Your task to perform on an android device: Is it going to rain today? Image 0: 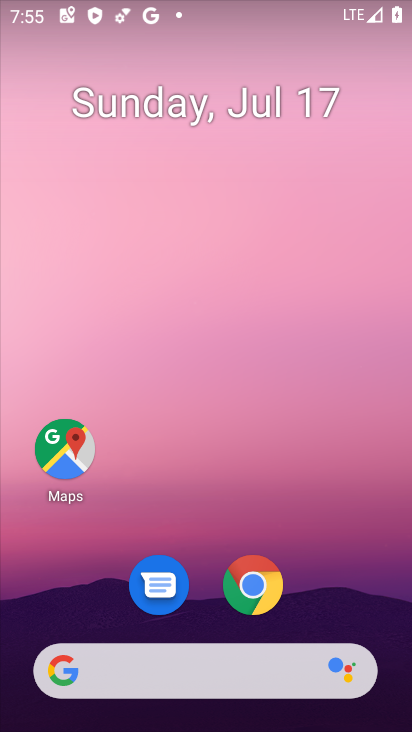
Step 0: click (267, 675)
Your task to perform on an android device: Is it going to rain today? Image 1: 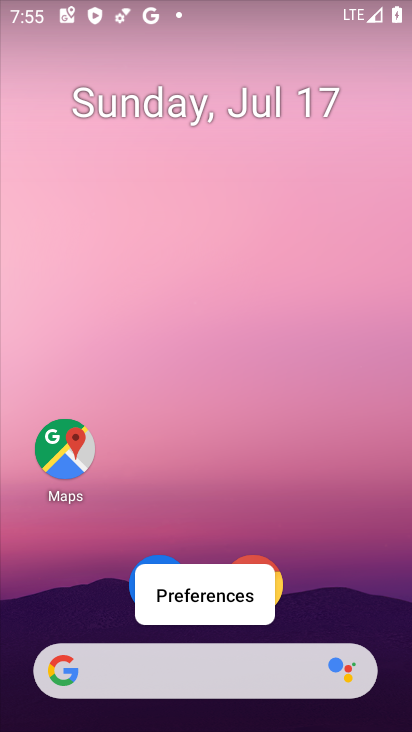
Step 1: click (231, 672)
Your task to perform on an android device: Is it going to rain today? Image 2: 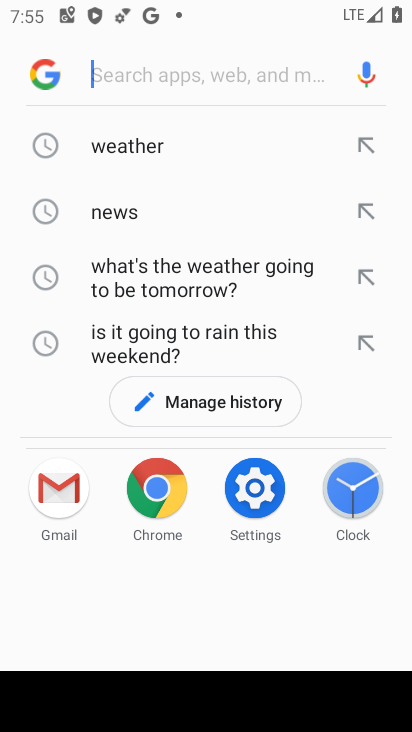
Step 2: click (156, 142)
Your task to perform on an android device: Is it going to rain today? Image 3: 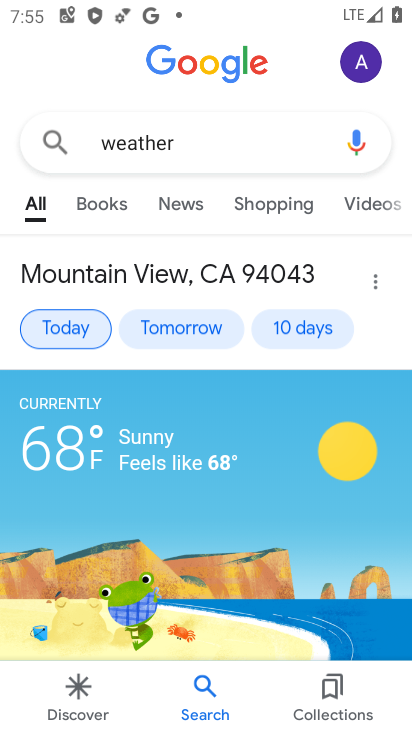
Step 3: click (76, 326)
Your task to perform on an android device: Is it going to rain today? Image 4: 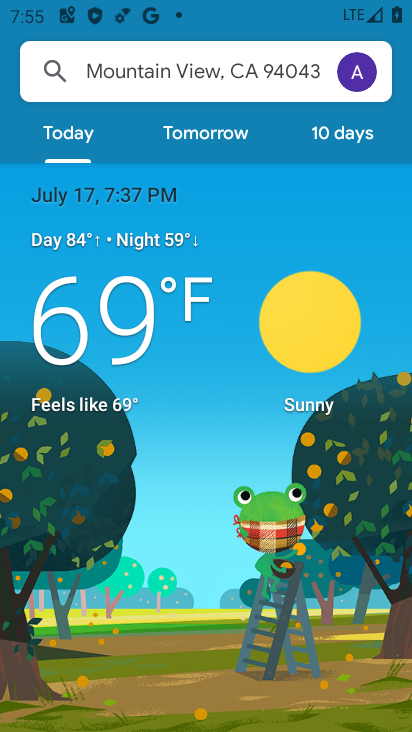
Step 4: task complete